Your task to perform on an android device: Search for Mexican restaurants on Maps Image 0: 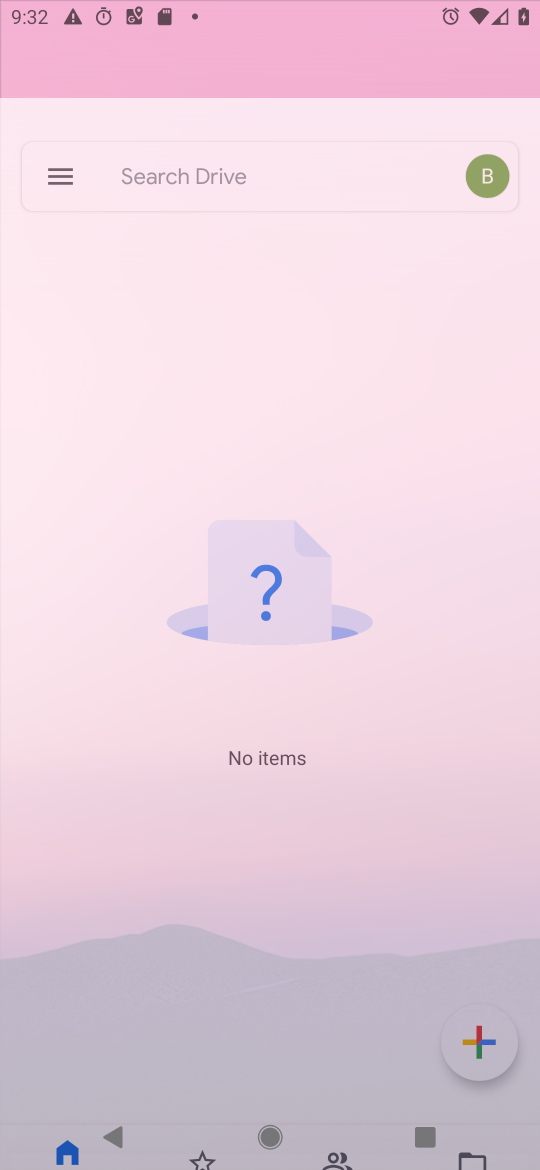
Step 0: click (232, 550)
Your task to perform on an android device: Search for Mexican restaurants on Maps Image 1: 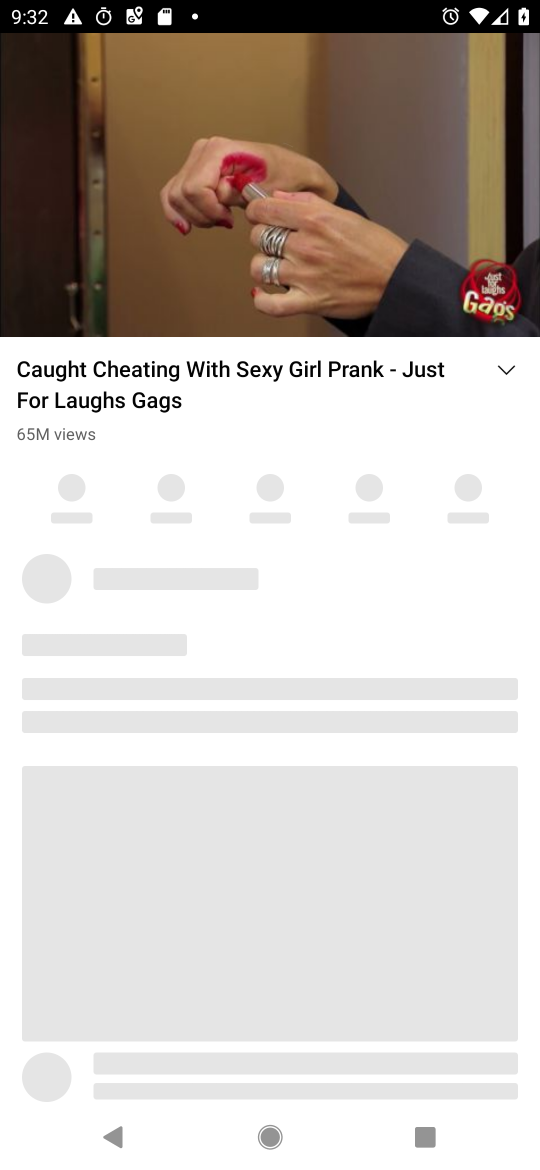
Step 1: press home button
Your task to perform on an android device: Search for Mexican restaurants on Maps Image 2: 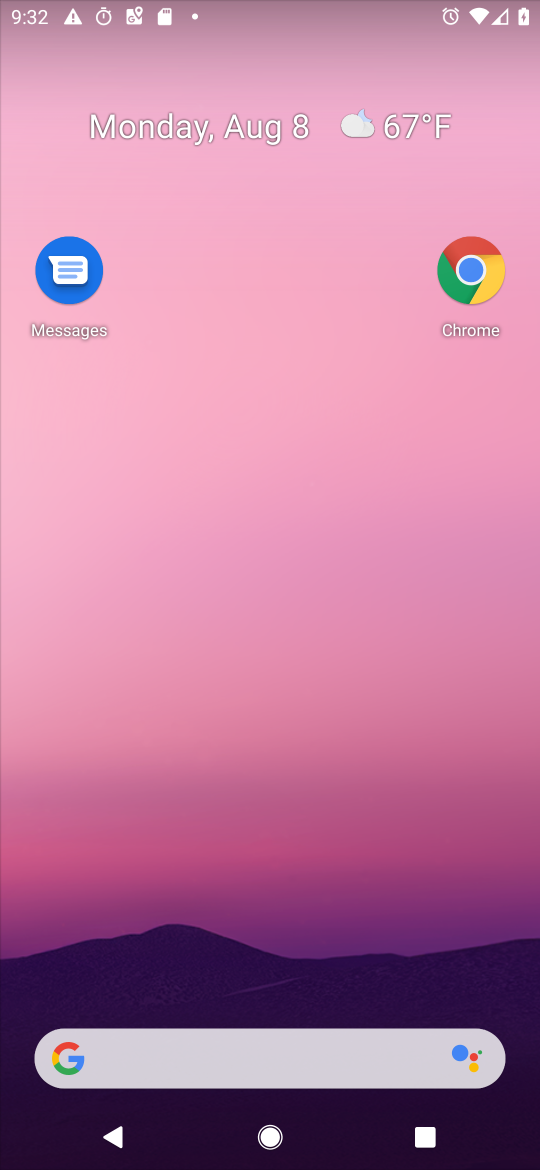
Step 2: drag from (284, 207) to (534, 945)
Your task to perform on an android device: Search for Mexican restaurants on Maps Image 3: 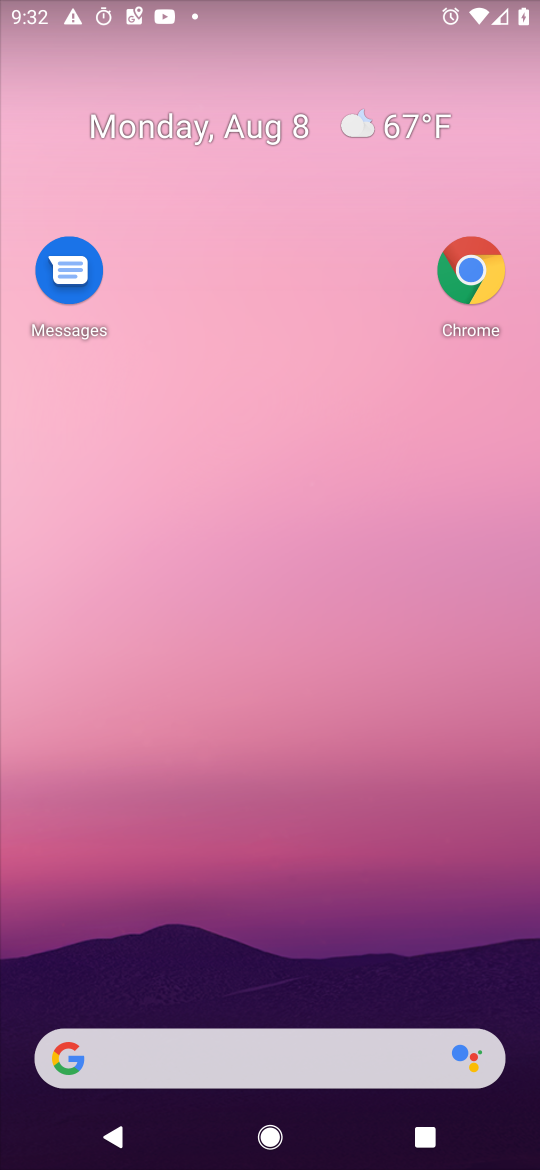
Step 3: drag from (295, 940) to (328, 229)
Your task to perform on an android device: Search for Mexican restaurants on Maps Image 4: 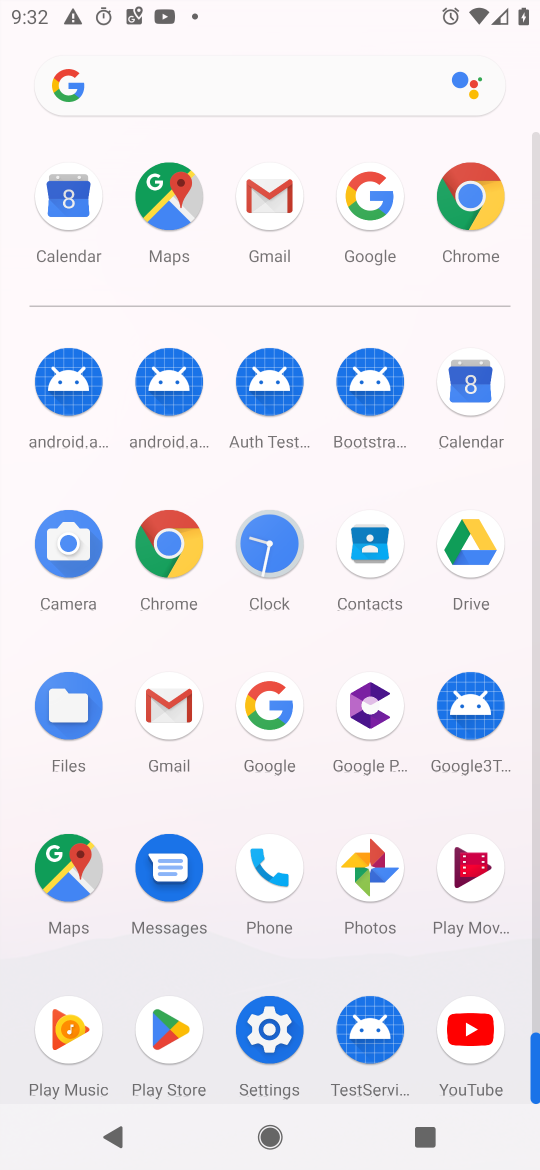
Step 4: click (174, 190)
Your task to perform on an android device: Search for Mexican restaurants on Maps Image 5: 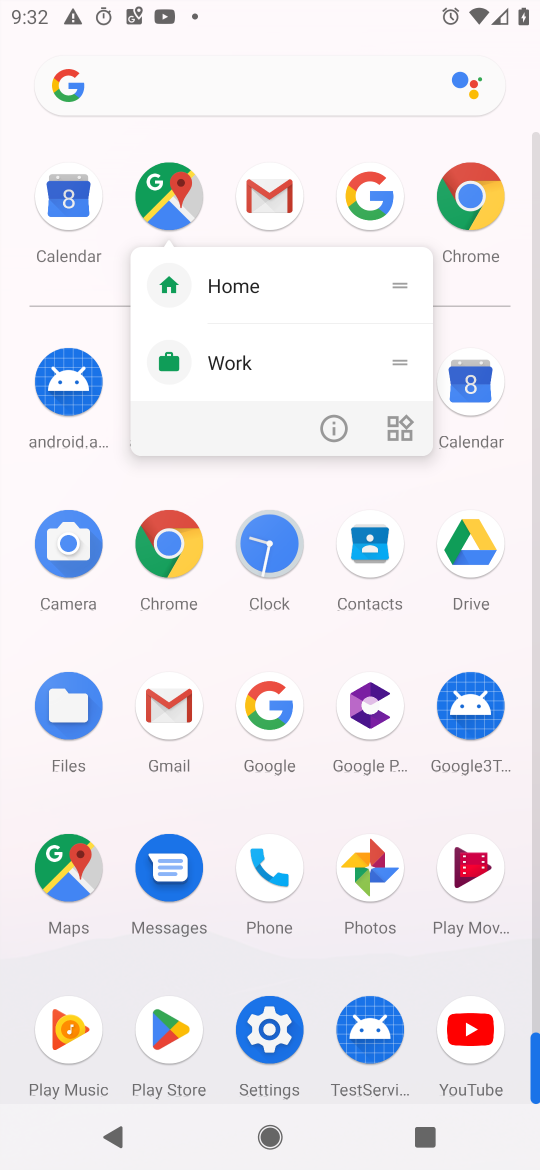
Step 5: click (319, 418)
Your task to perform on an android device: Search for Mexican restaurants on Maps Image 6: 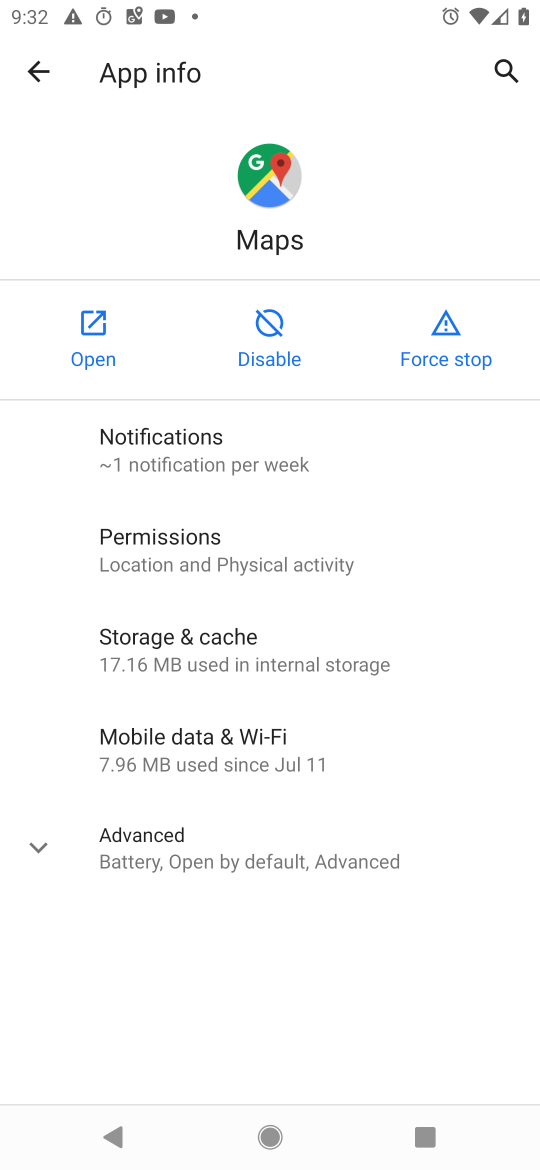
Step 6: click (108, 359)
Your task to perform on an android device: Search for Mexican restaurants on Maps Image 7: 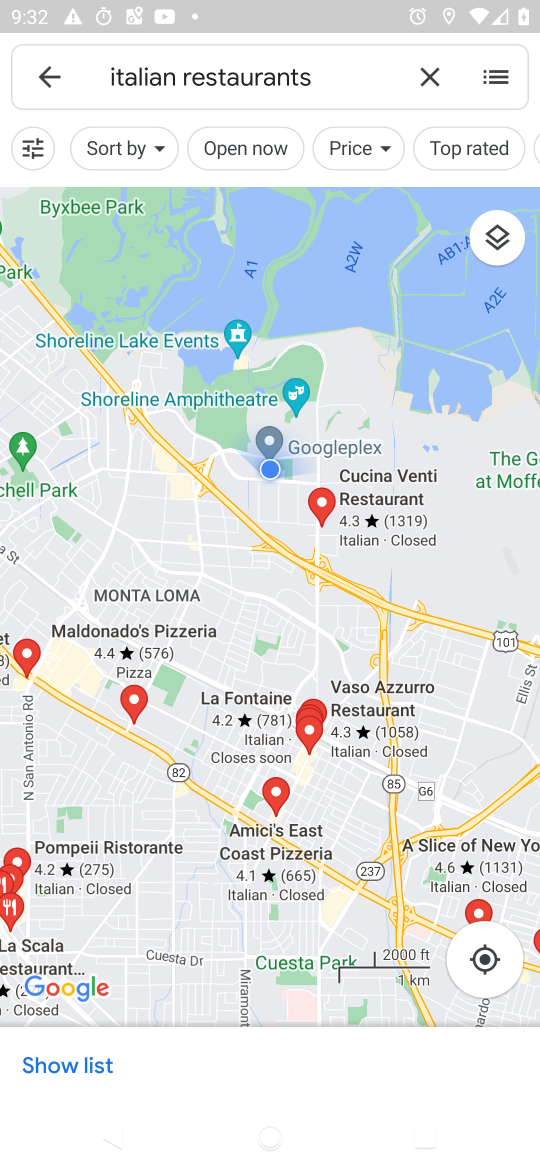
Step 7: click (353, 92)
Your task to perform on an android device: Search for Mexican restaurants on Maps Image 8: 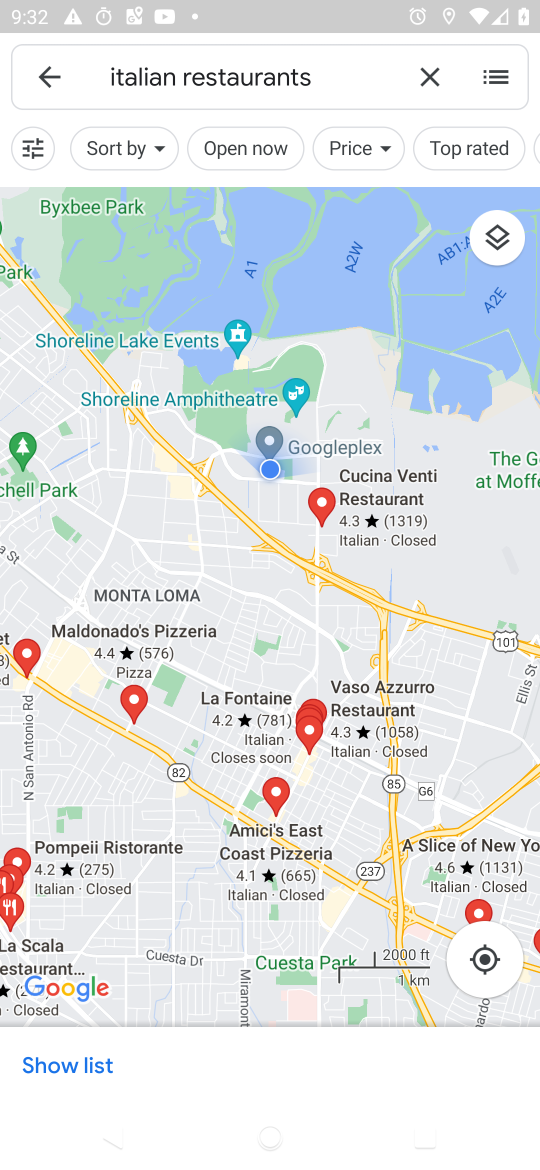
Step 8: click (435, 77)
Your task to perform on an android device: Search for Mexican restaurants on Maps Image 9: 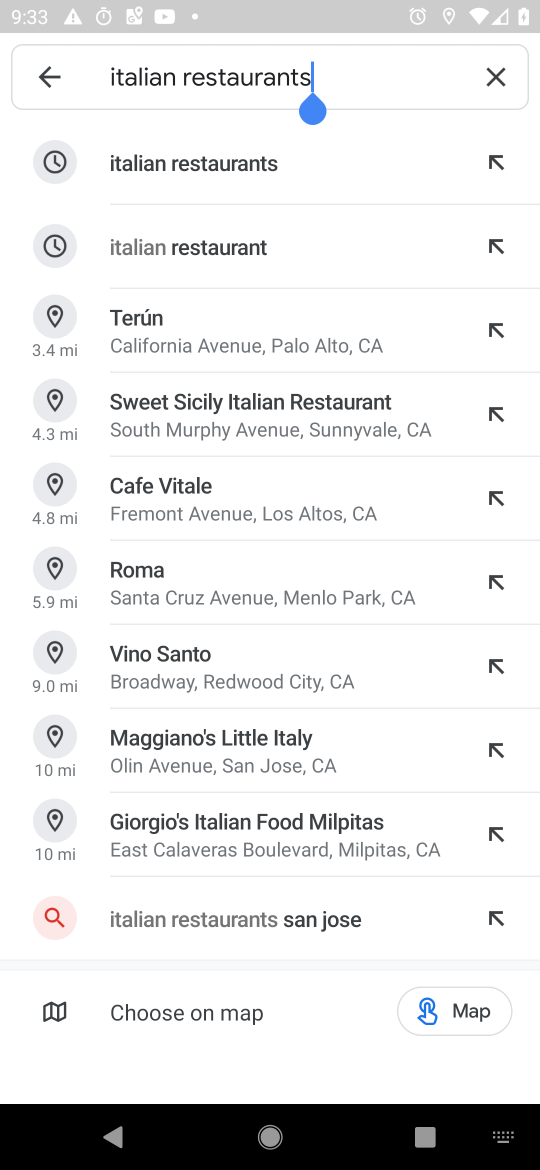
Step 9: click (482, 76)
Your task to perform on an android device: Search for Mexican restaurants on Maps Image 10: 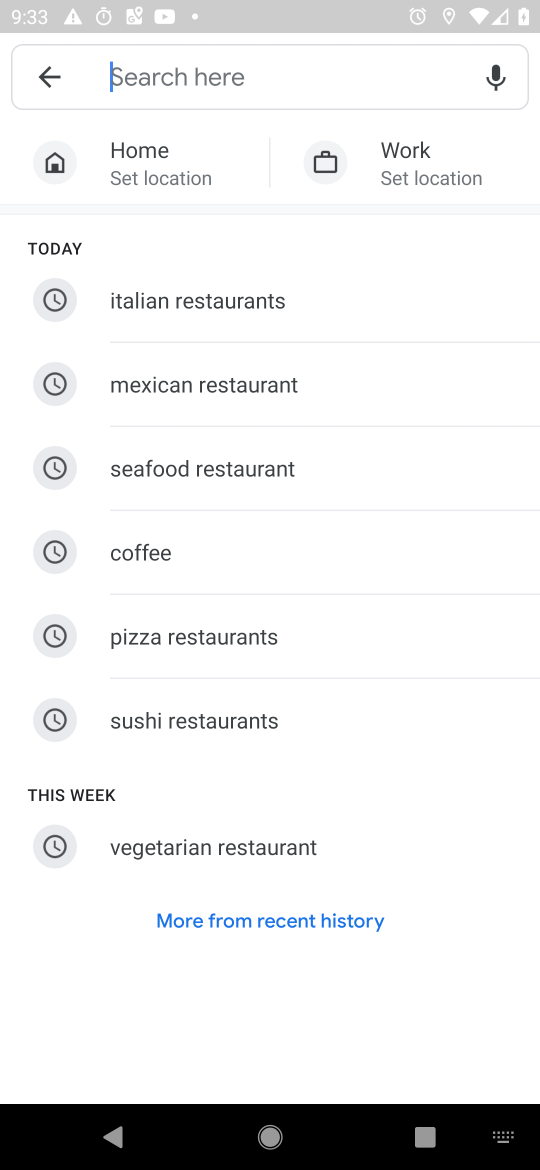
Step 10: click (104, 367)
Your task to perform on an android device: Search for Mexican restaurants on Maps Image 11: 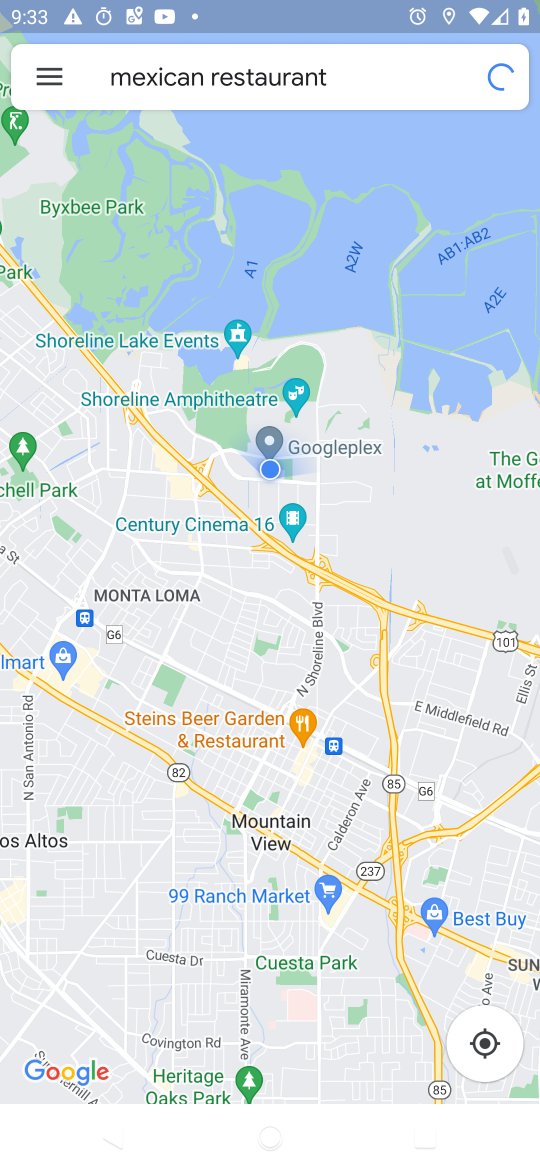
Step 11: task complete